Your task to perform on an android device: turn vacation reply on in the gmail app Image 0: 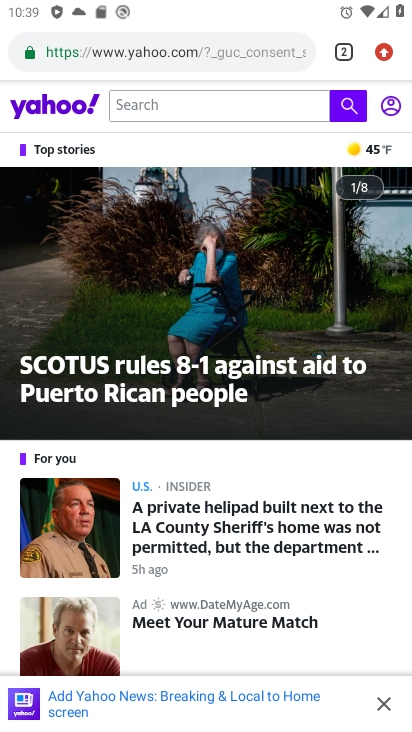
Step 0: press home button
Your task to perform on an android device: turn vacation reply on in the gmail app Image 1: 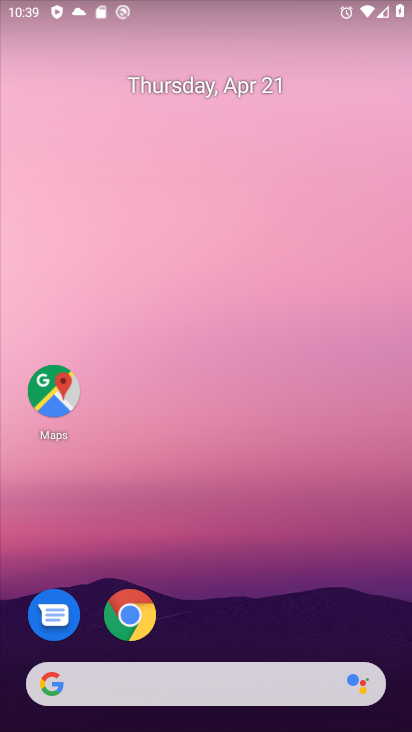
Step 1: drag from (212, 638) to (237, 58)
Your task to perform on an android device: turn vacation reply on in the gmail app Image 2: 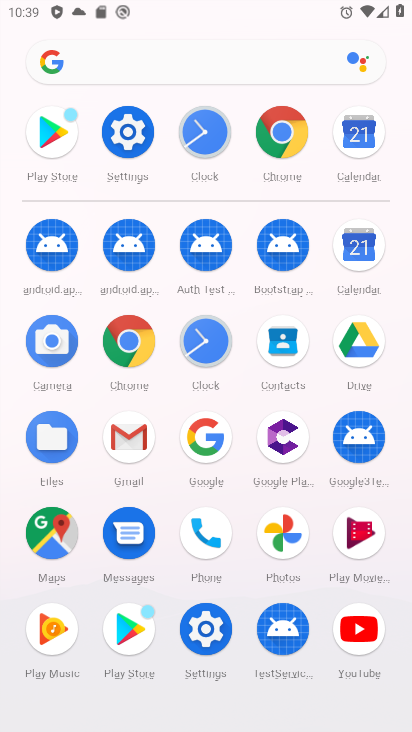
Step 2: click (127, 431)
Your task to perform on an android device: turn vacation reply on in the gmail app Image 3: 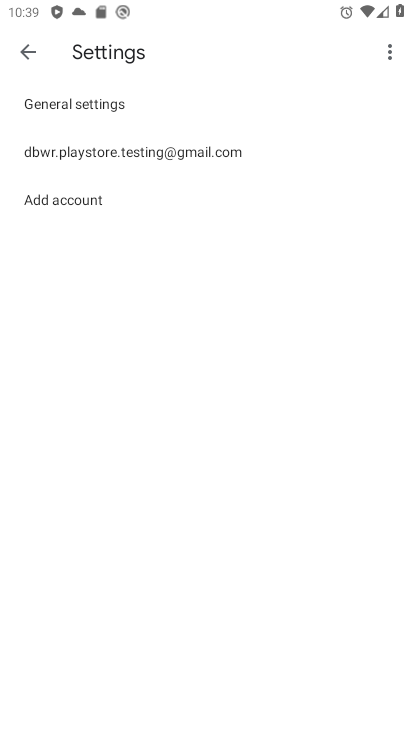
Step 3: click (171, 147)
Your task to perform on an android device: turn vacation reply on in the gmail app Image 4: 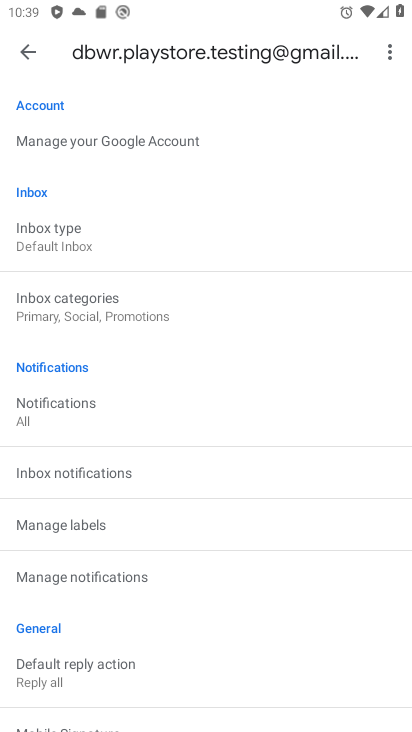
Step 4: drag from (203, 594) to (262, 79)
Your task to perform on an android device: turn vacation reply on in the gmail app Image 5: 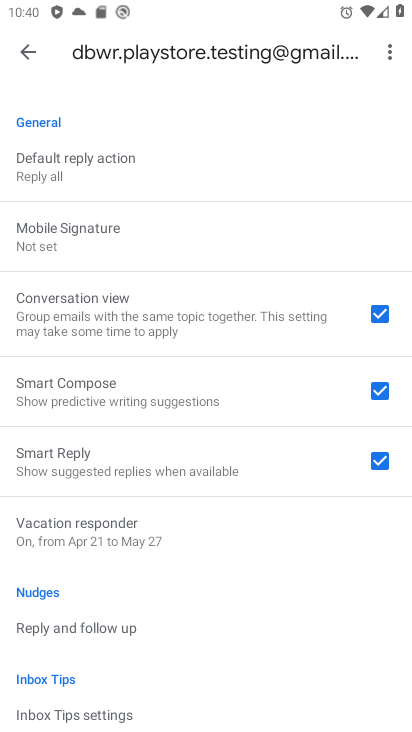
Step 5: click (179, 528)
Your task to perform on an android device: turn vacation reply on in the gmail app Image 6: 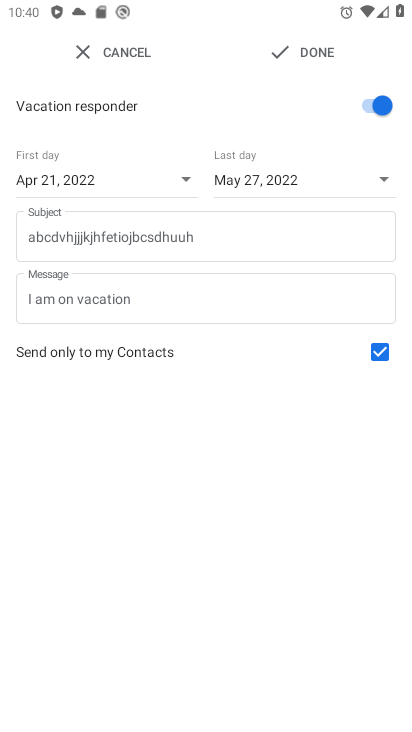
Step 6: task complete